Your task to perform on an android device: see tabs open on other devices in the chrome app Image 0: 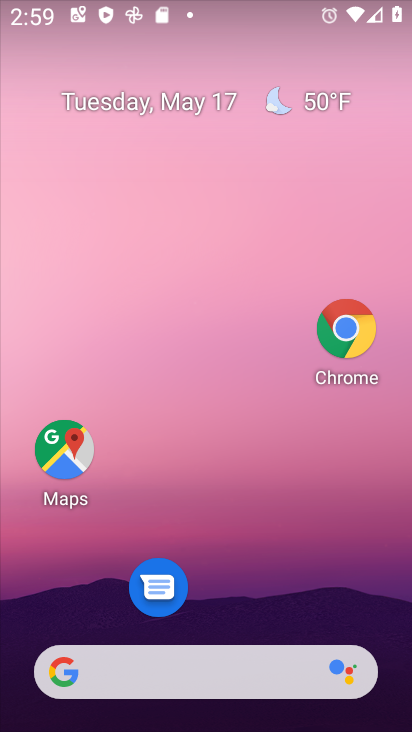
Step 0: click (347, 350)
Your task to perform on an android device: see tabs open on other devices in the chrome app Image 1: 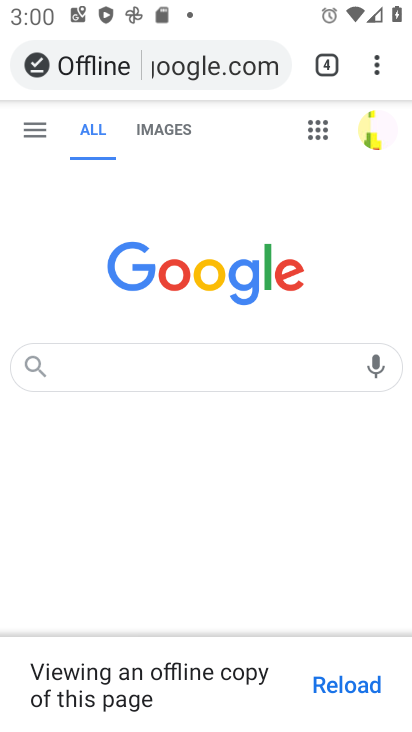
Step 1: click (372, 77)
Your task to perform on an android device: see tabs open on other devices in the chrome app Image 2: 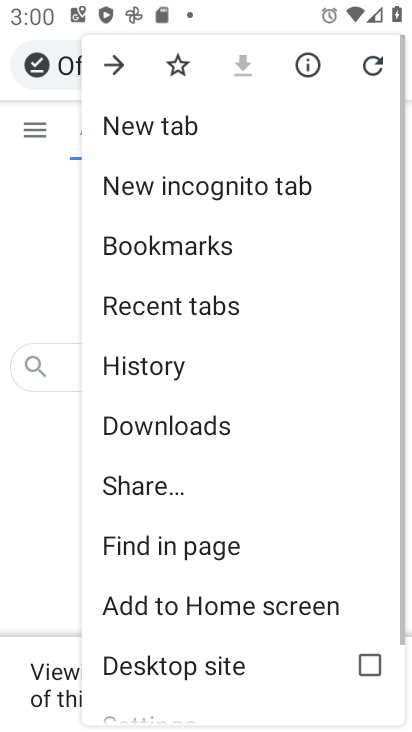
Step 2: drag from (204, 583) to (248, 381)
Your task to perform on an android device: see tabs open on other devices in the chrome app Image 3: 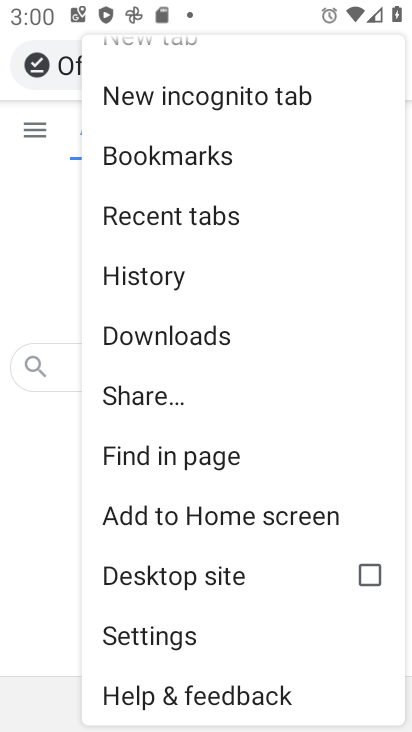
Step 3: click (213, 644)
Your task to perform on an android device: see tabs open on other devices in the chrome app Image 4: 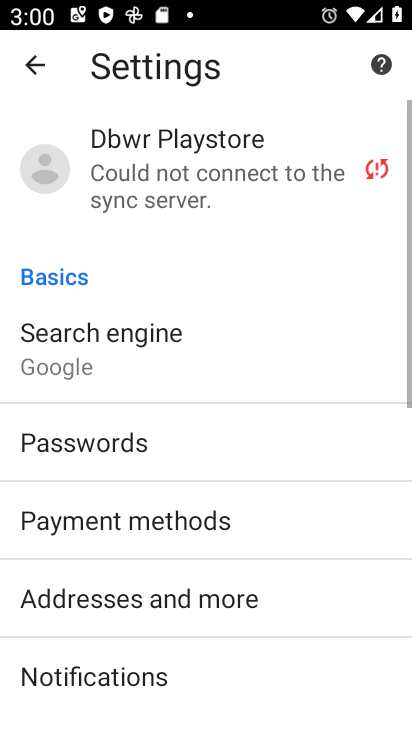
Step 4: drag from (247, 522) to (286, 262)
Your task to perform on an android device: see tabs open on other devices in the chrome app Image 5: 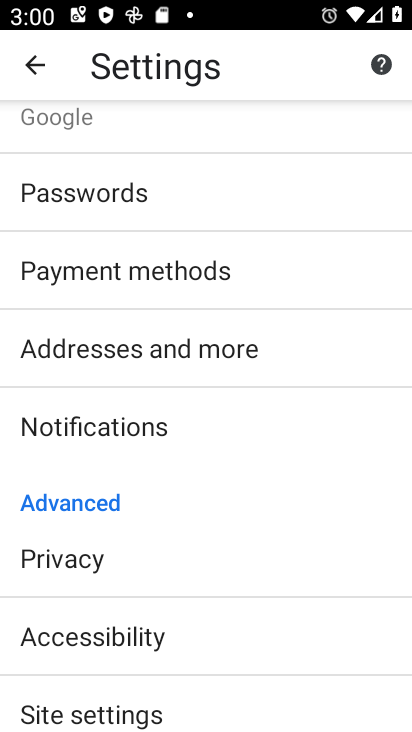
Step 5: drag from (229, 632) to (246, 401)
Your task to perform on an android device: see tabs open on other devices in the chrome app Image 6: 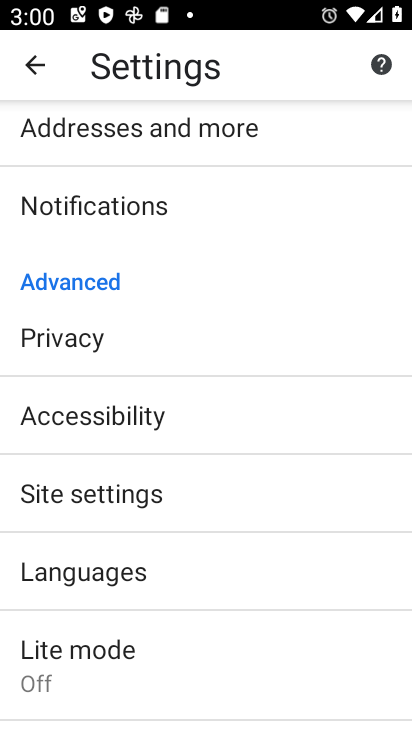
Step 6: click (42, 70)
Your task to perform on an android device: see tabs open on other devices in the chrome app Image 7: 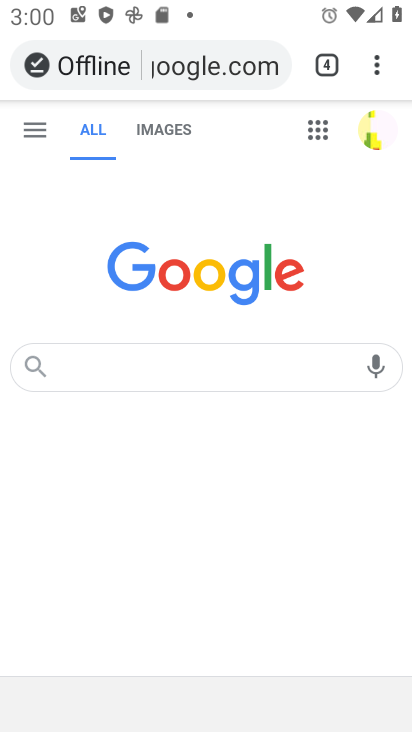
Step 7: click (371, 78)
Your task to perform on an android device: see tabs open on other devices in the chrome app Image 8: 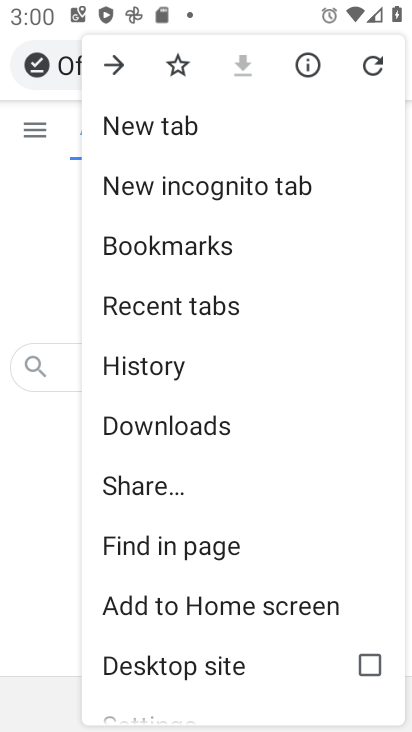
Step 8: drag from (186, 662) to (194, 339)
Your task to perform on an android device: see tabs open on other devices in the chrome app Image 9: 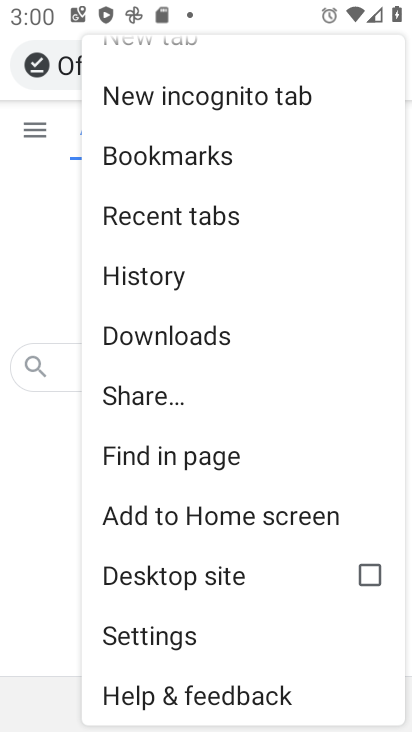
Step 9: click (225, 207)
Your task to perform on an android device: see tabs open on other devices in the chrome app Image 10: 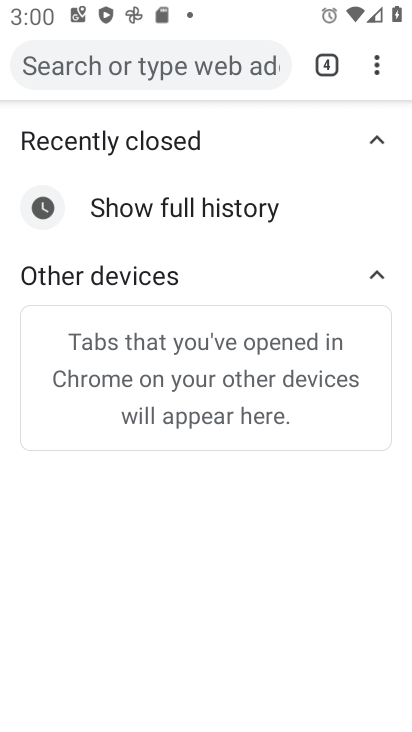
Step 10: task complete